Your task to perform on an android device: turn off picture-in-picture Image 0: 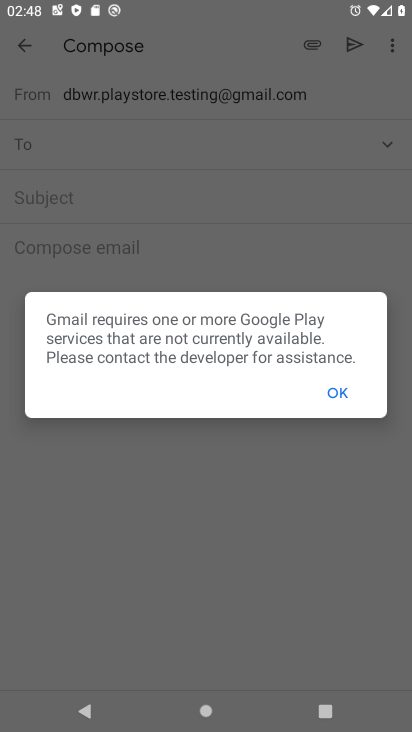
Step 0: press home button
Your task to perform on an android device: turn off picture-in-picture Image 1: 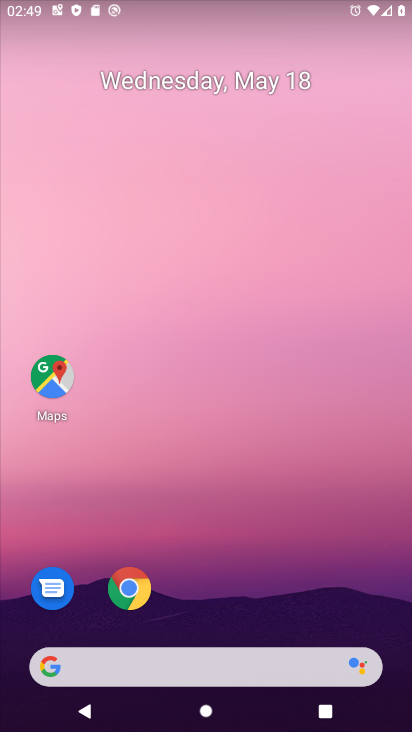
Step 1: drag from (21, 663) to (193, 293)
Your task to perform on an android device: turn off picture-in-picture Image 2: 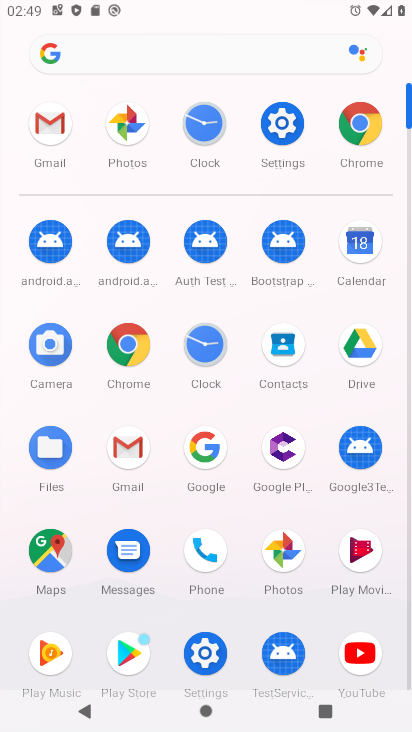
Step 2: click (284, 120)
Your task to perform on an android device: turn off picture-in-picture Image 3: 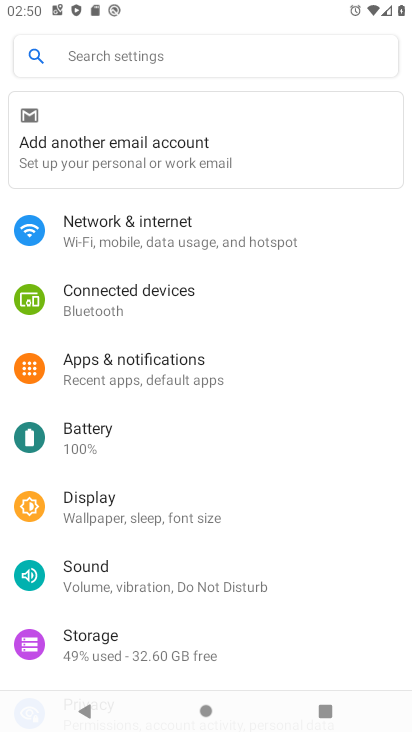
Step 3: click (140, 373)
Your task to perform on an android device: turn off picture-in-picture Image 4: 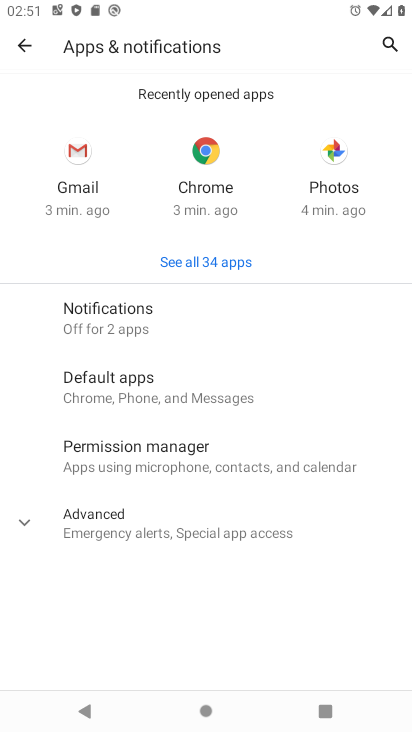
Step 4: click (89, 528)
Your task to perform on an android device: turn off picture-in-picture Image 5: 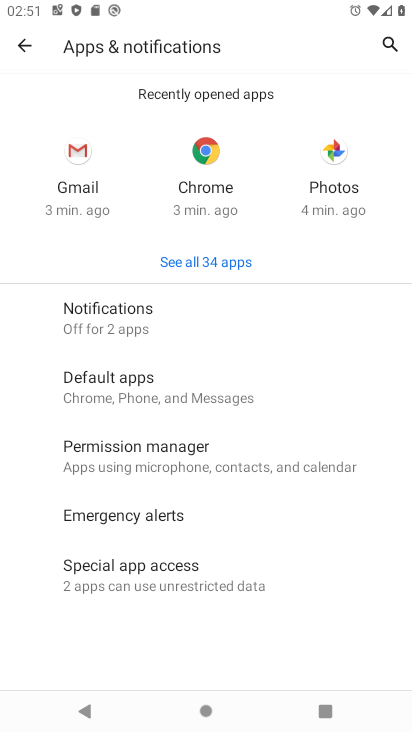
Step 5: click (152, 579)
Your task to perform on an android device: turn off picture-in-picture Image 6: 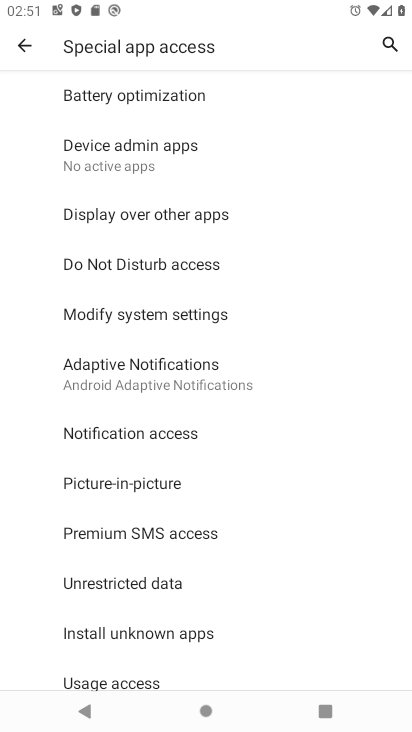
Step 6: click (141, 487)
Your task to perform on an android device: turn off picture-in-picture Image 7: 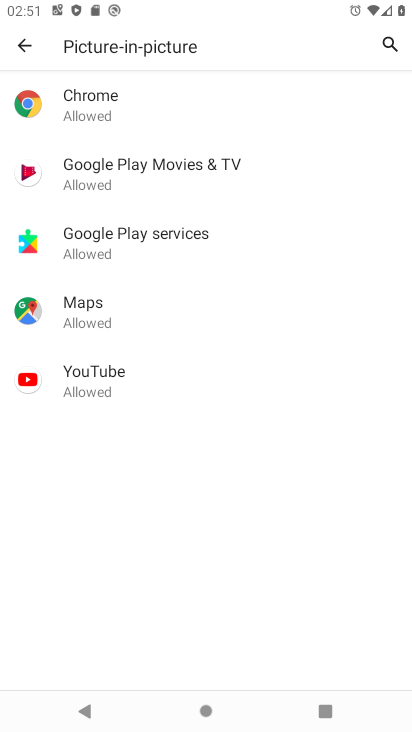
Step 7: click (228, 95)
Your task to perform on an android device: turn off picture-in-picture Image 8: 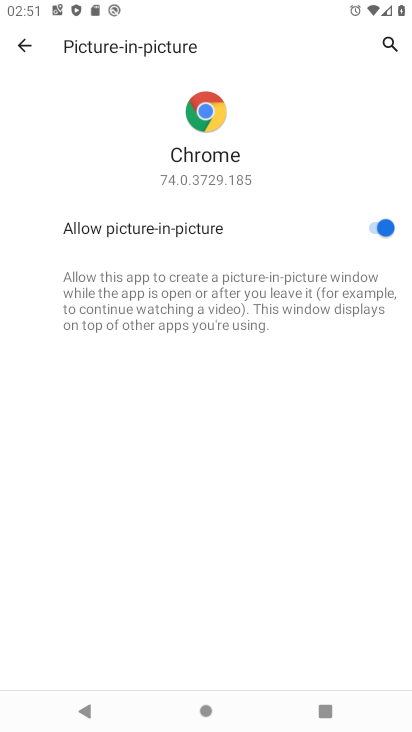
Step 8: click (380, 230)
Your task to perform on an android device: turn off picture-in-picture Image 9: 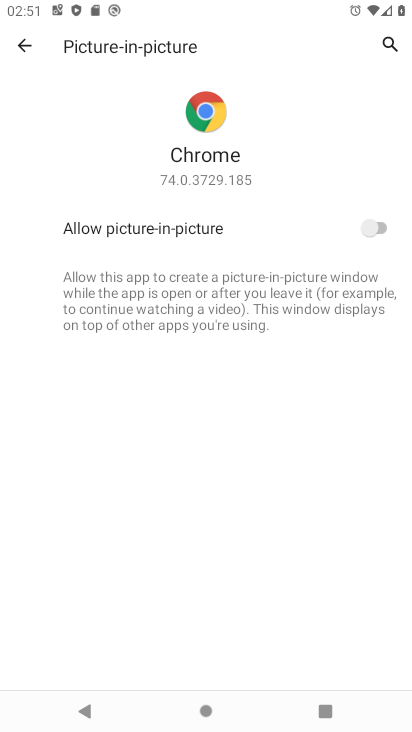
Step 9: click (26, 47)
Your task to perform on an android device: turn off picture-in-picture Image 10: 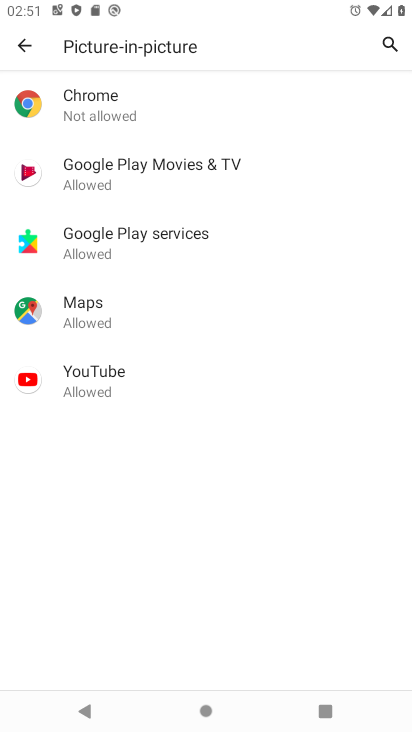
Step 10: click (99, 181)
Your task to perform on an android device: turn off picture-in-picture Image 11: 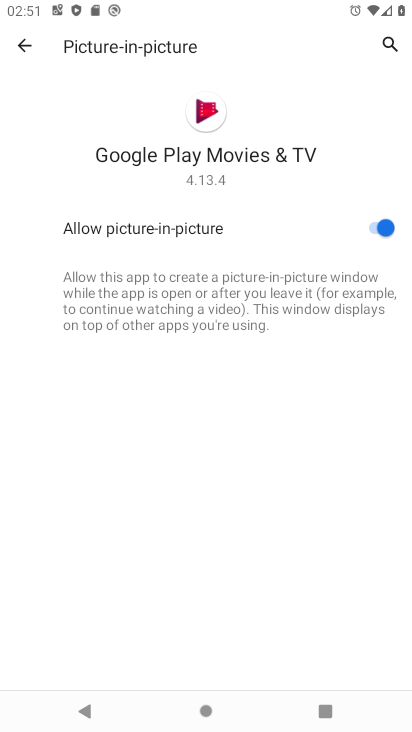
Step 11: click (381, 229)
Your task to perform on an android device: turn off picture-in-picture Image 12: 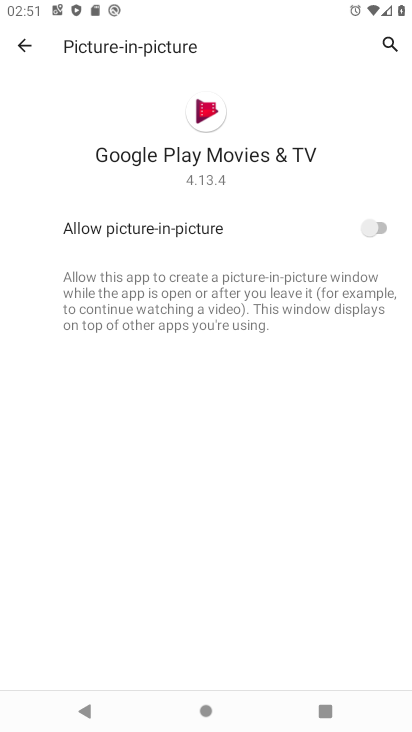
Step 12: click (17, 55)
Your task to perform on an android device: turn off picture-in-picture Image 13: 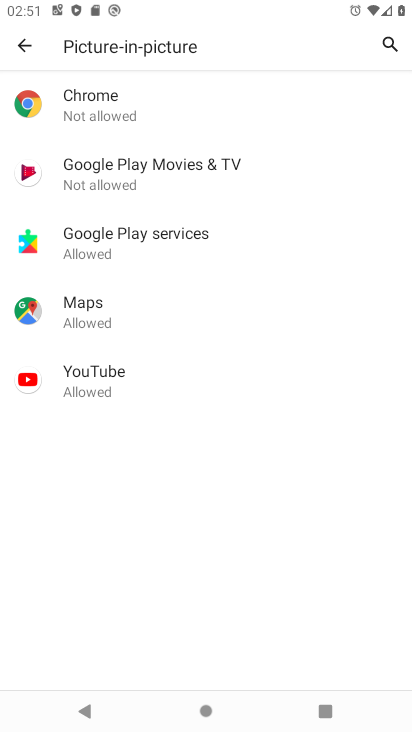
Step 13: click (233, 228)
Your task to perform on an android device: turn off picture-in-picture Image 14: 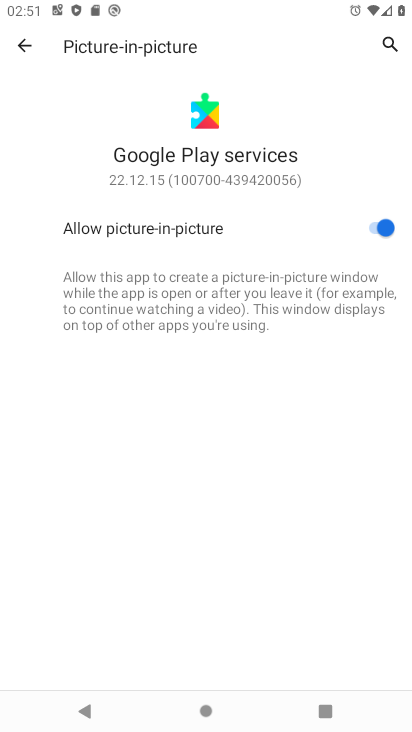
Step 14: click (386, 230)
Your task to perform on an android device: turn off picture-in-picture Image 15: 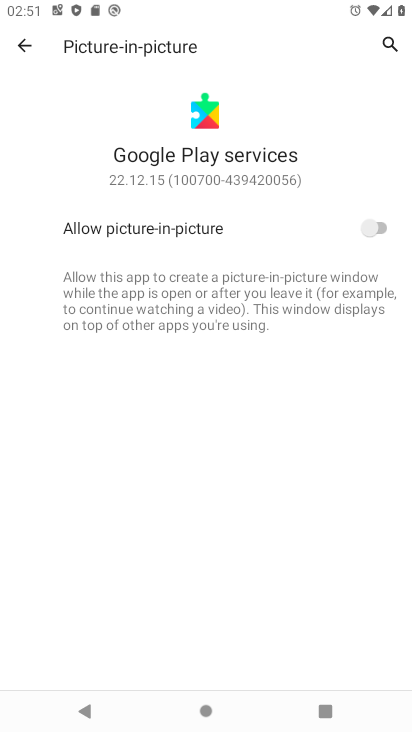
Step 15: click (21, 43)
Your task to perform on an android device: turn off picture-in-picture Image 16: 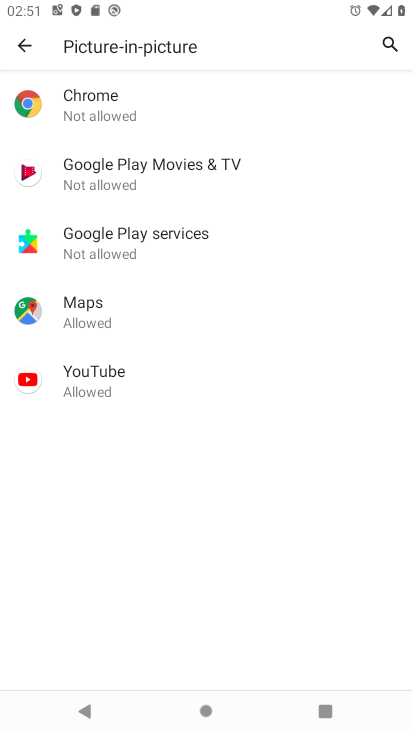
Step 16: click (308, 282)
Your task to perform on an android device: turn off picture-in-picture Image 17: 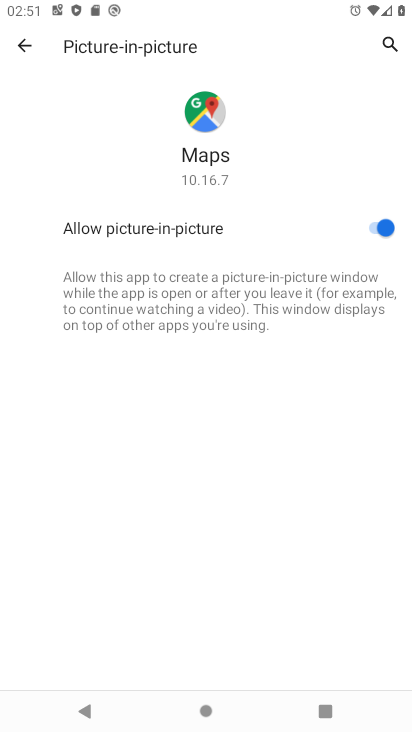
Step 17: click (386, 224)
Your task to perform on an android device: turn off picture-in-picture Image 18: 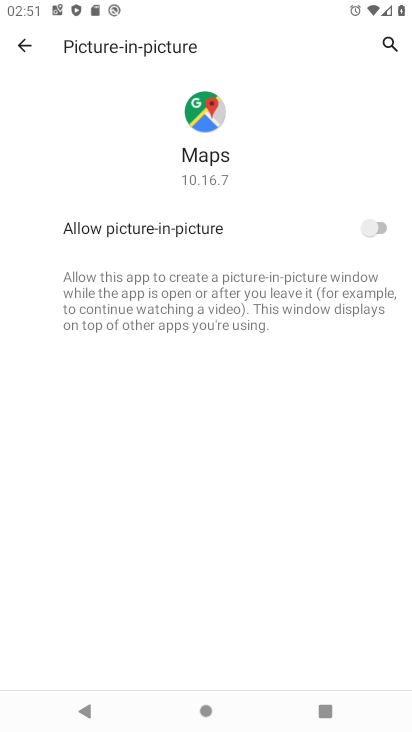
Step 18: click (26, 42)
Your task to perform on an android device: turn off picture-in-picture Image 19: 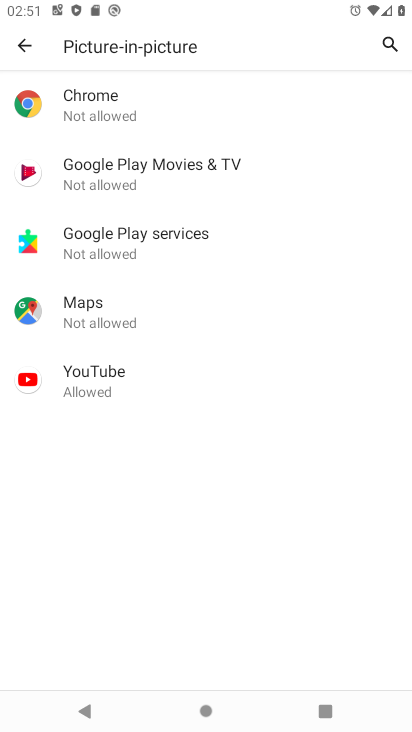
Step 19: click (157, 364)
Your task to perform on an android device: turn off picture-in-picture Image 20: 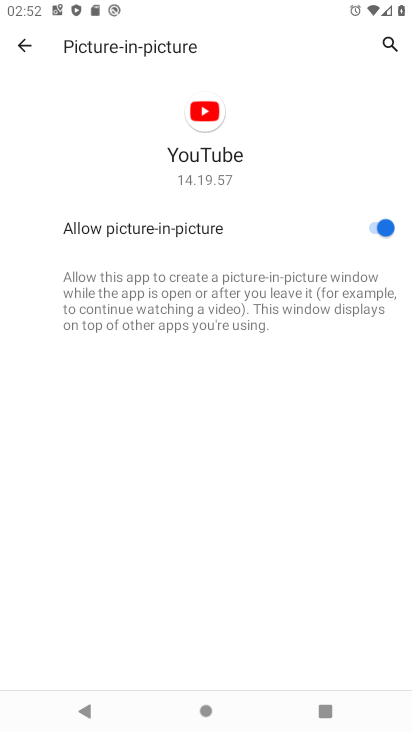
Step 20: click (390, 232)
Your task to perform on an android device: turn off picture-in-picture Image 21: 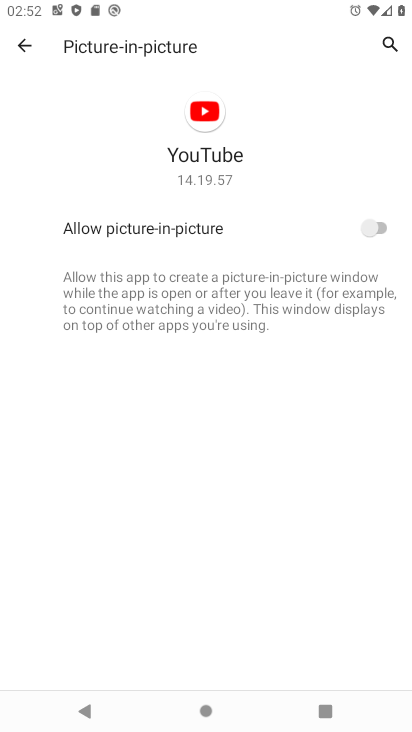
Step 21: task complete